Your task to perform on an android device: Open accessibility settings Image 0: 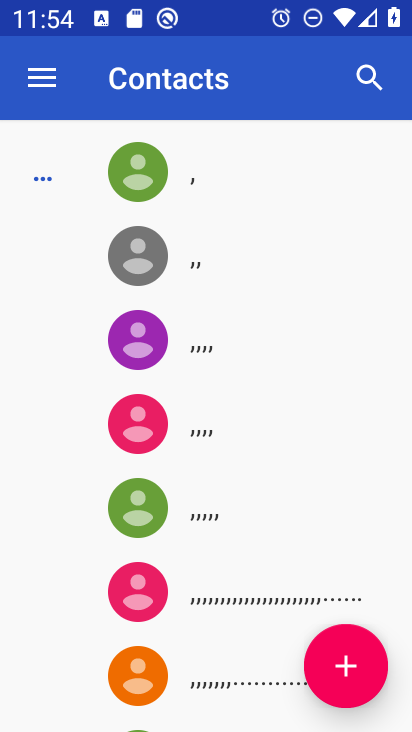
Step 0: press home button
Your task to perform on an android device: Open accessibility settings Image 1: 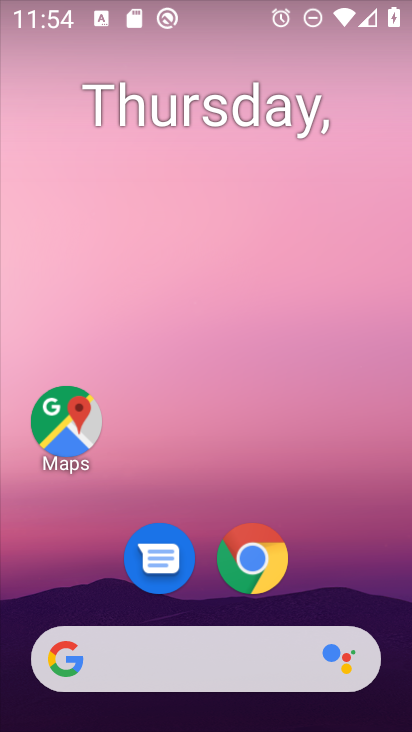
Step 1: drag from (374, 605) to (272, 200)
Your task to perform on an android device: Open accessibility settings Image 2: 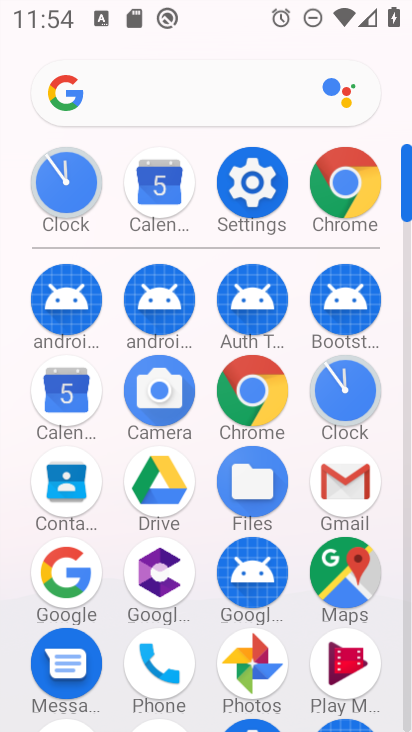
Step 2: click (409, 701)
Your task to perform on an android device: Open accessibility settings Image 3: 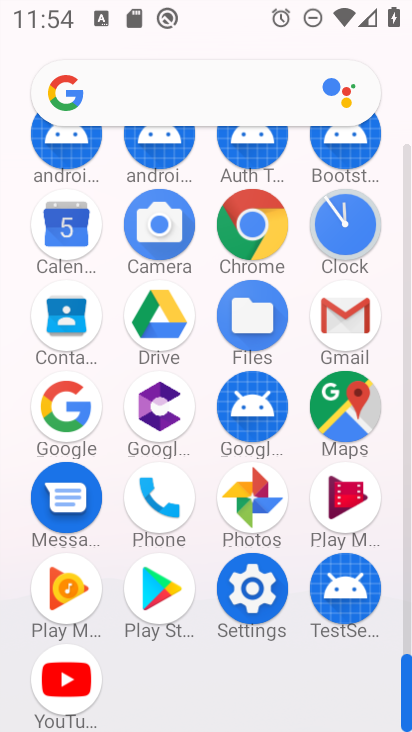
Step 3: click (249, 585)
Your task to perform on an android device: Open accessibility settings Image 4: 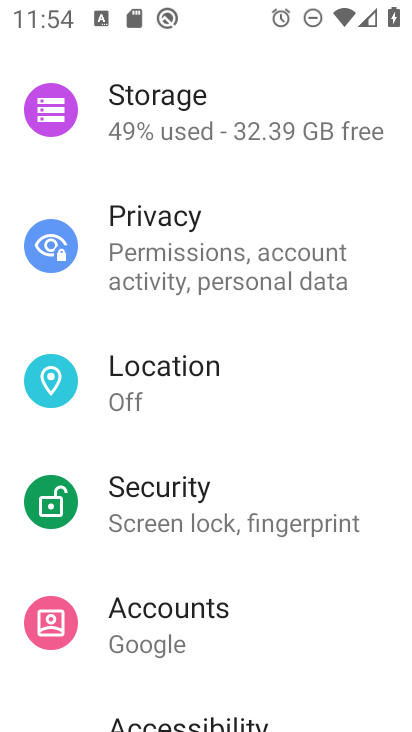
Step 4: drag from (315, 677) to (308, 364)
Your task to perform on an android device: Open accessibility settings Image 5: 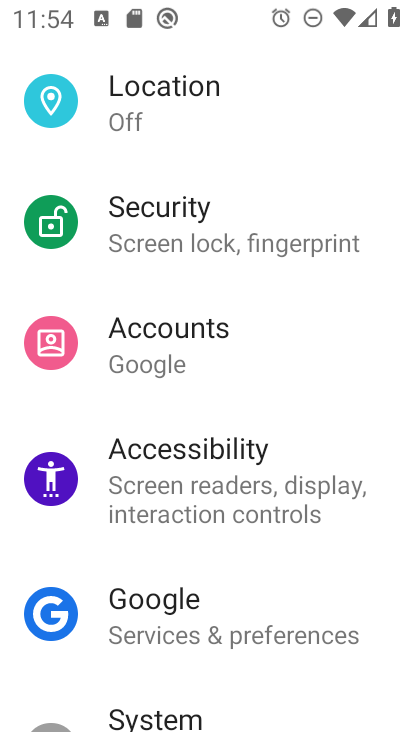
Step 5: click (160, 461)
Your task to perform on an android device: Open accessibility settings Image 6: 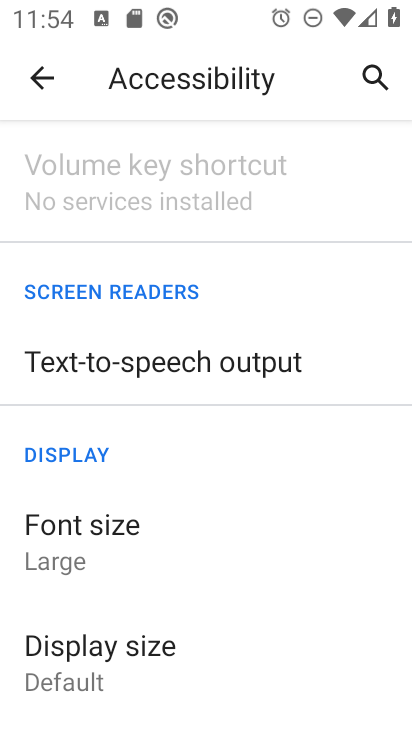
Step 6: task complete